Your task to perform on an android device: Check the news Image 0: 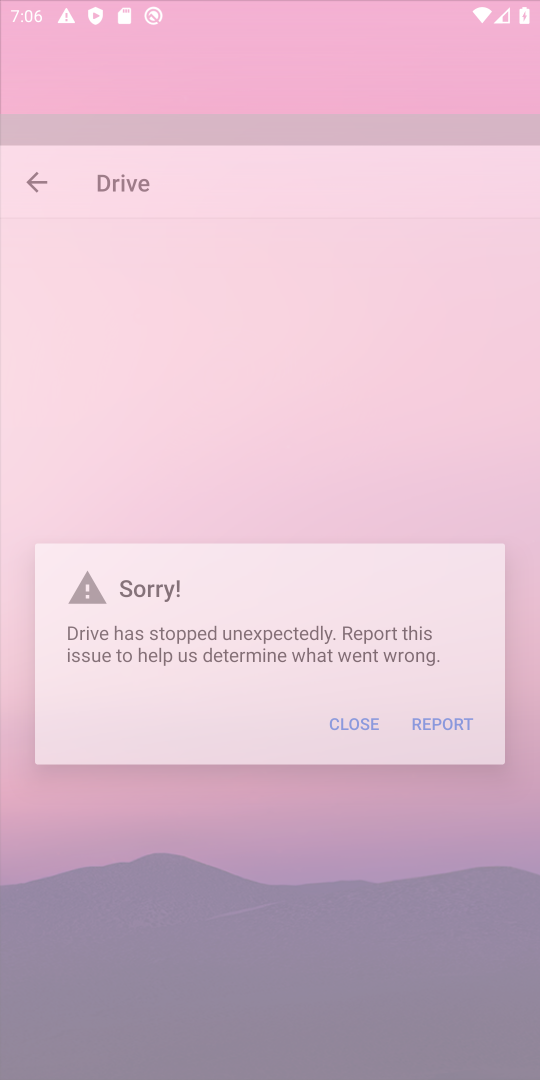
Step 0: press home button
Your task to perform on an android device: Check the news Image 1: 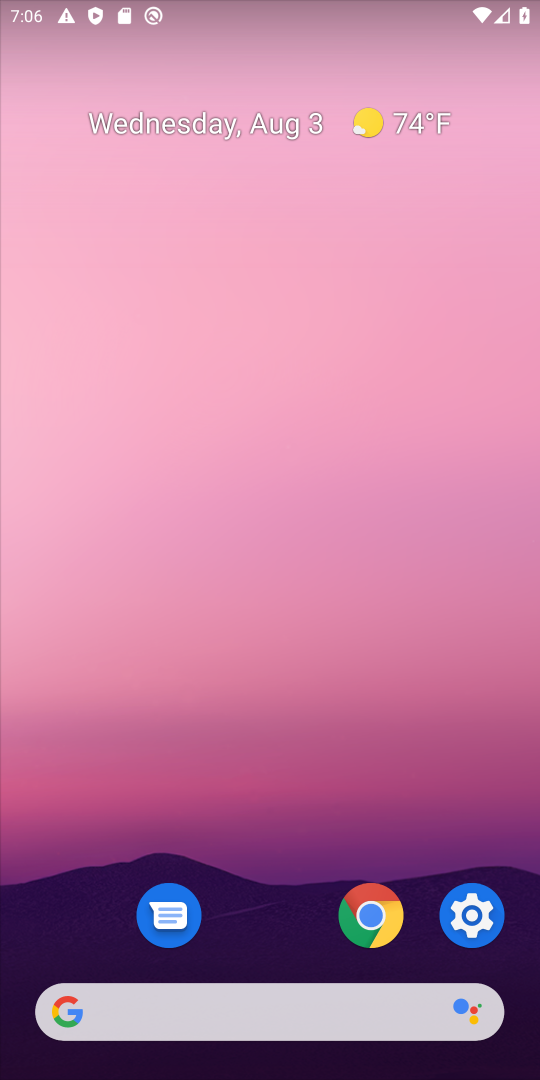
Step 1: click (269, 1007)
Your task to perform on an android device: Check the news Image 2: 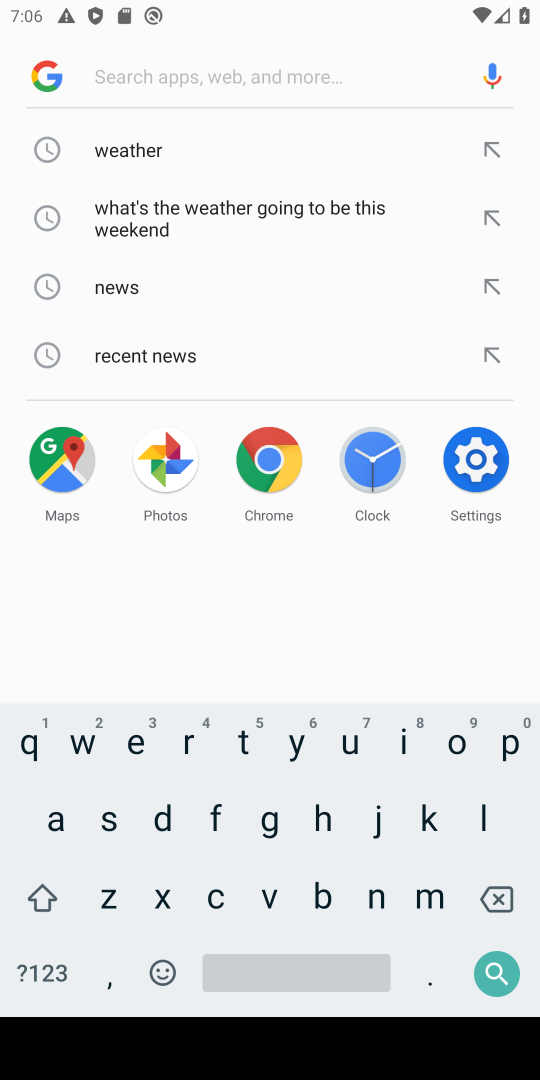
Step 2: click (146, 291)
Your task to perform on an android device: Check the news Image 3: 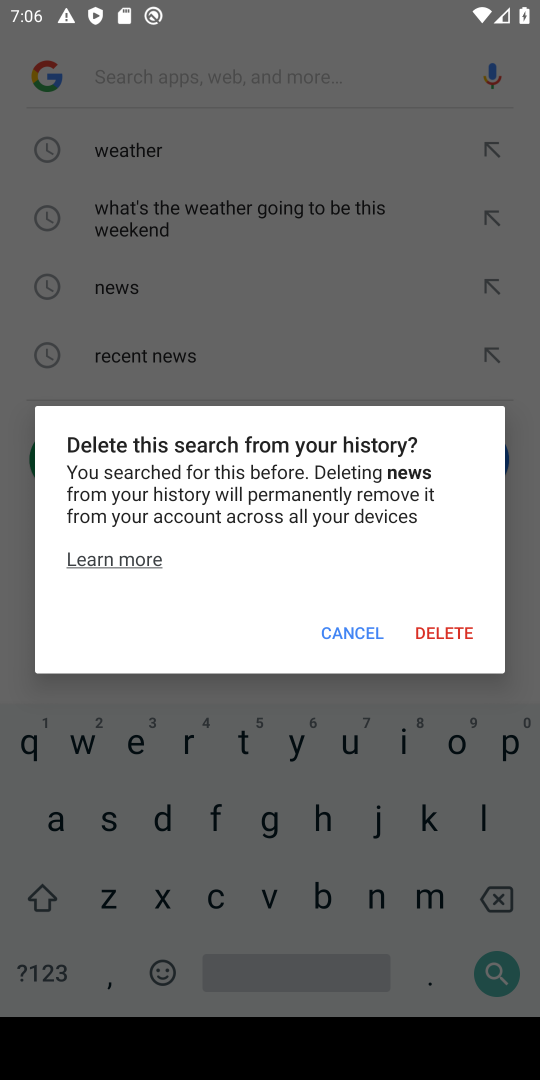
Step 3: click (358, 626)
Your task to perform on an android device: Check the news Image 4: 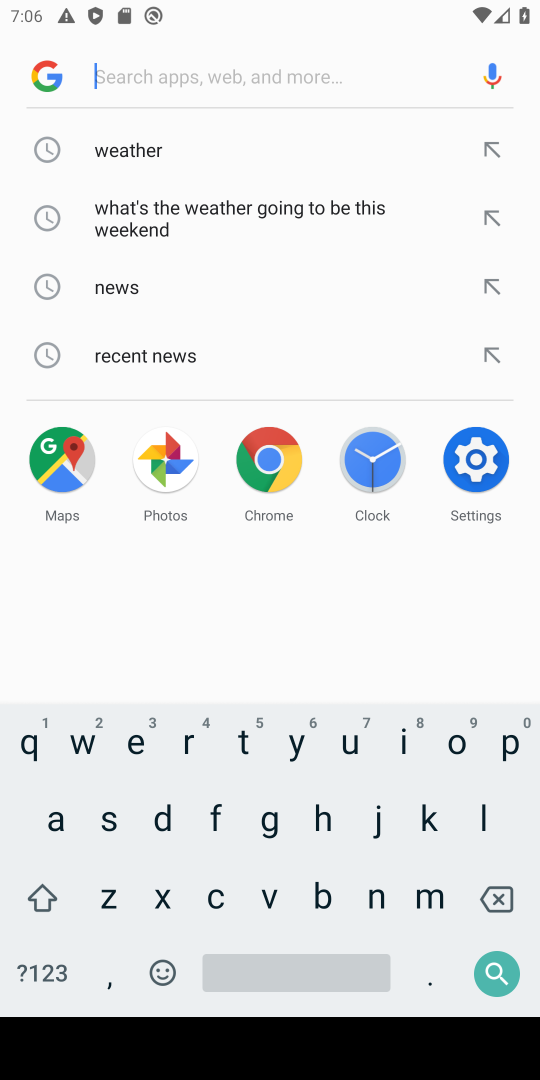
Step 4: click (153, 291)
Your task to perform on an android device: Check the news Image 5: 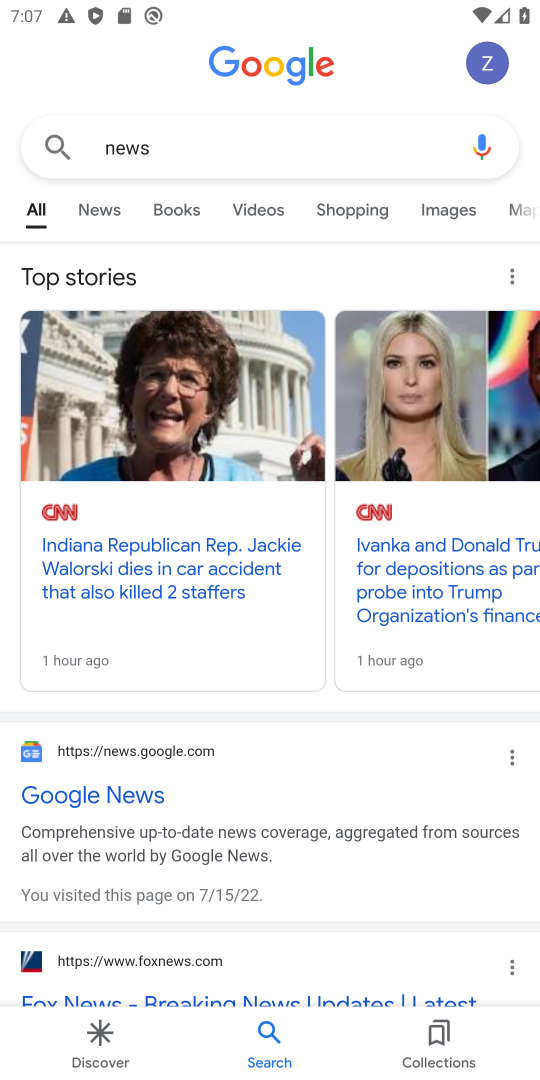
Step 5: task complete